Your task to perform on an android device: Open the phone app and click the voicemail tab. Image 0: 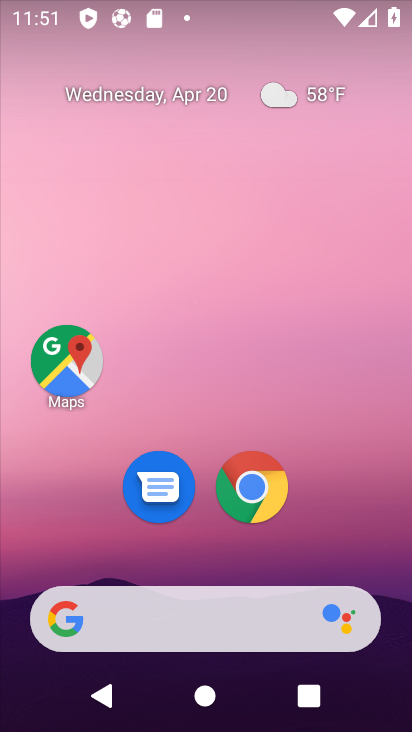
Step 0: drag from (377, 552) to (339, 2)
Your task to perform on an android device: Open the phone app and click the voicemail tab. Image 1: 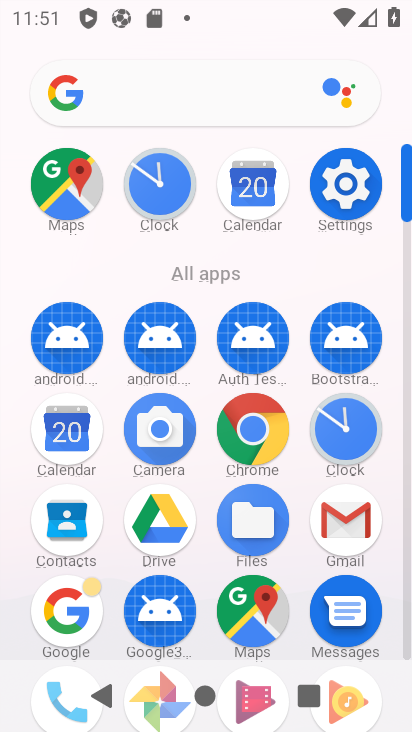
Step 1: drag from (406, 567) to (405, 524)
Your task to perform on an android device: Open the phone app and click the voicemail tab. Image 2: 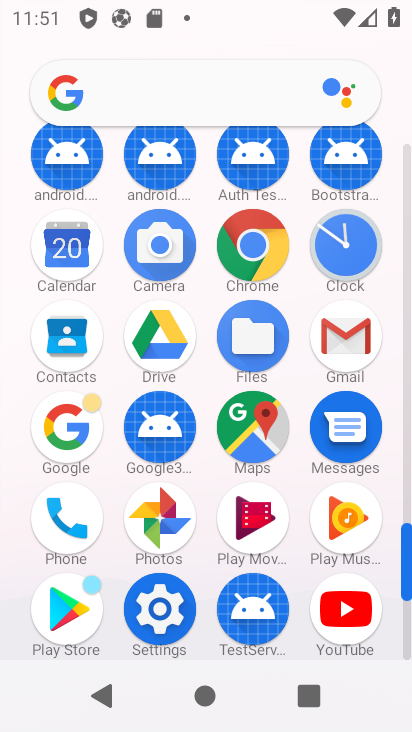
Step 2: click (62, 536)
Your task to perform on an android device: Open the phone app and click the voicemail tab. Image 3: 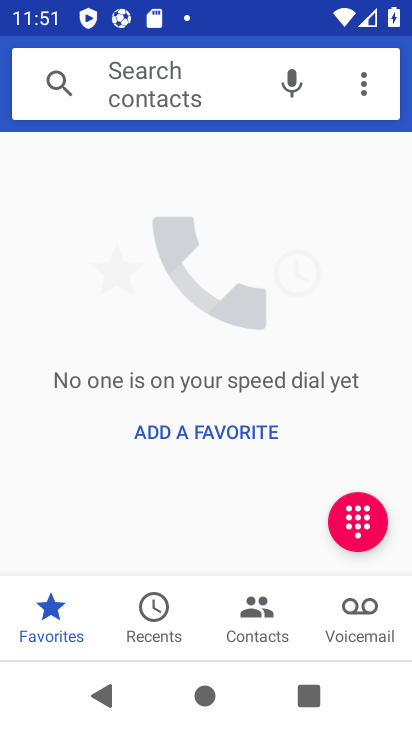
Step 3: click (362, 623)
Your task to perform on an android device: Open the phone app and click the voicemail tab. Image 4: 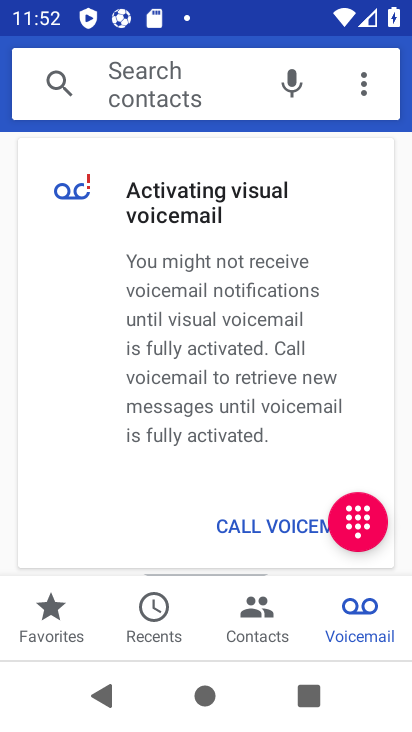
Step 4: task complete